Your task to perform on an android device: Go to internet settings Image 0: 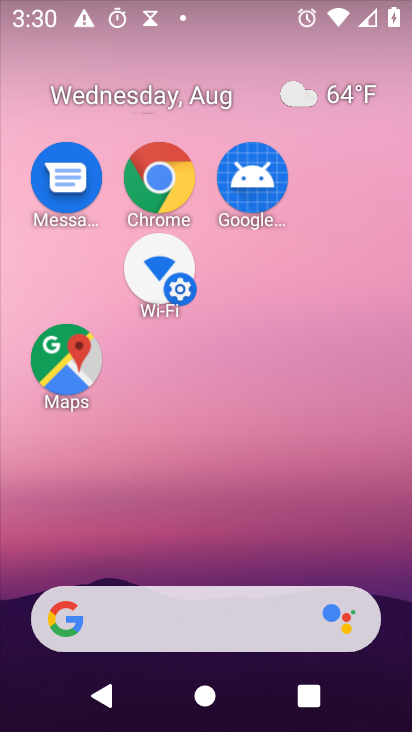
Step 0: press home button
Your task to perform on an android device: Go to internet settings Image 1: 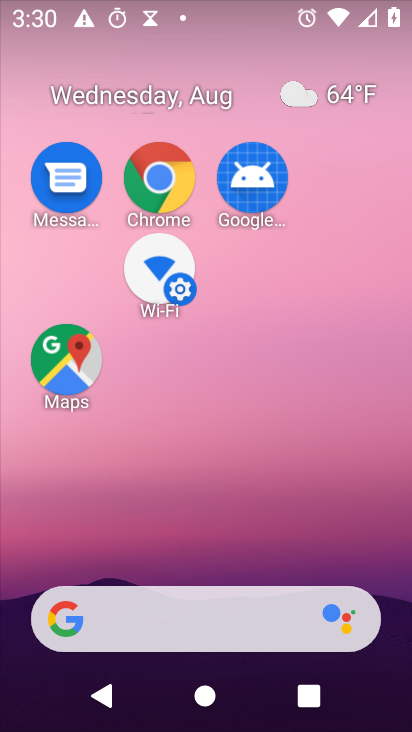
Step 1: drag from (244, 572) to (259, 69)
Your task to perform on an android device: Go to internet settings Image 2: 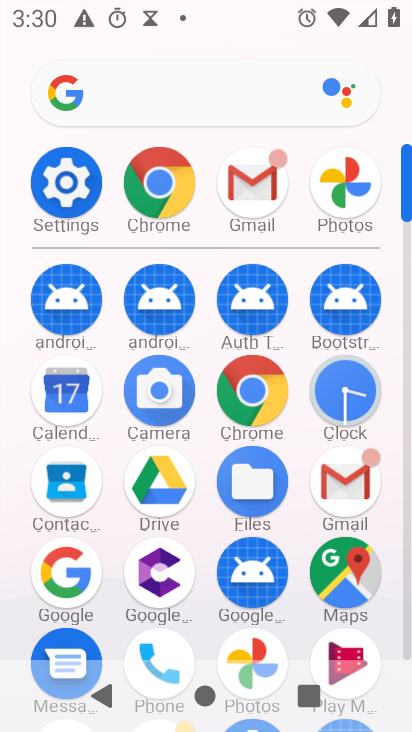
Step 2: click (55, 182)
Your task to perform on an android device: Go to internet settings Image 3: 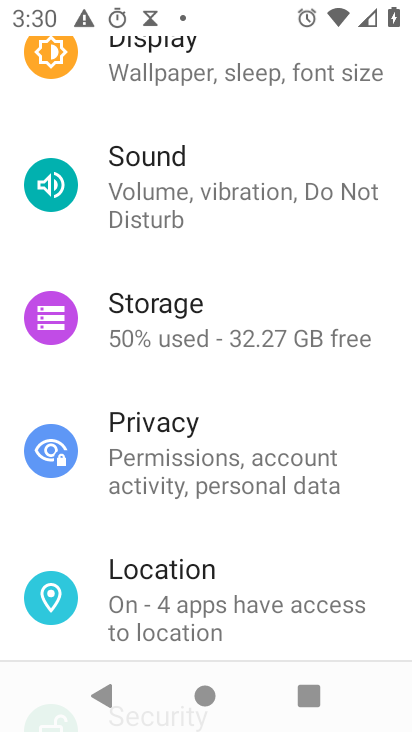
Step 3: drag from (236, 146) to (277, 707)
Your task to perform on an android device: Go to internet settings Image 4: 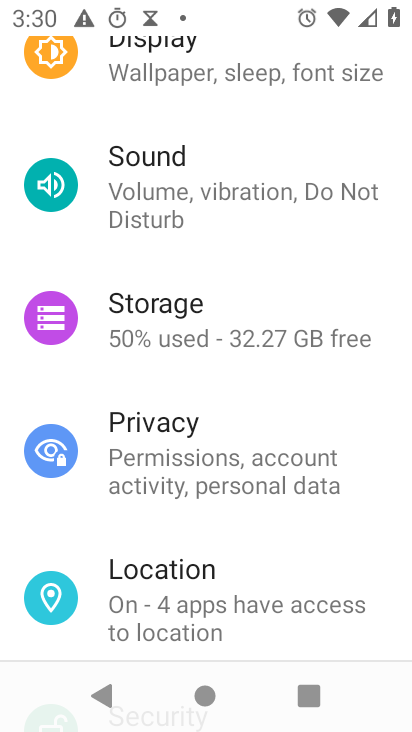
Step 4: drag from (284, 282) to (250, 716)
Your task to perform on an android device: Go to internet settings Image 5: 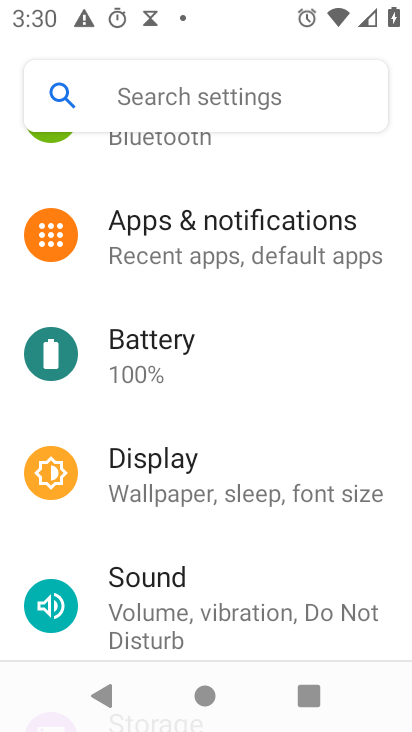
Step 5: drag from (259, 278) to (220, 724)
Your task to perform on an android device: Go to internet settings Image 6: 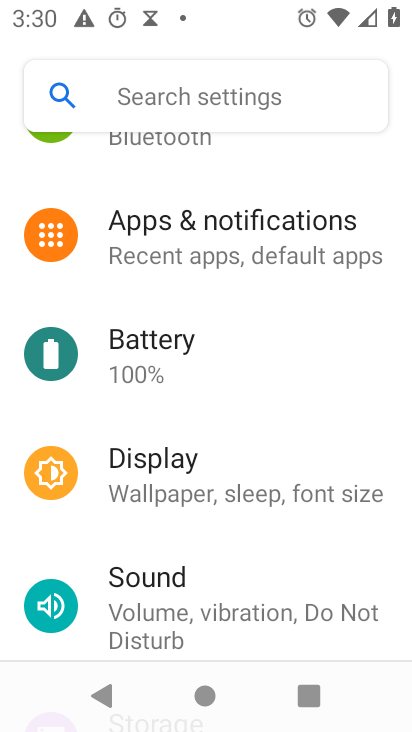
Step 6: drag from (198, 149) to (180, 603)
Your task to perform on an android device: Go to internet settings Image 7: 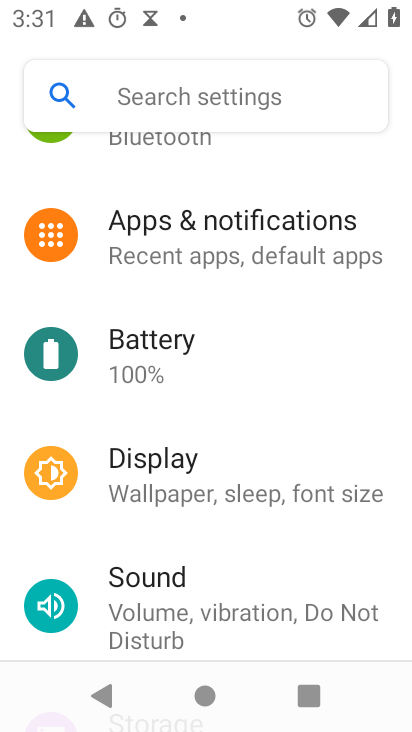
Step 7: drag from (261, 168) to (253, 547)
Your task to perform on an android device: Go to internet settings Image 8: 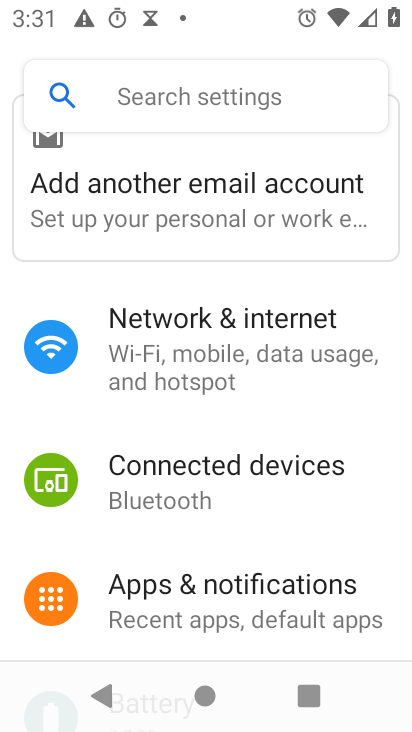
Step 8: click (185, 338)
Your task to perform on an android device: Go to internet settings Image 9: 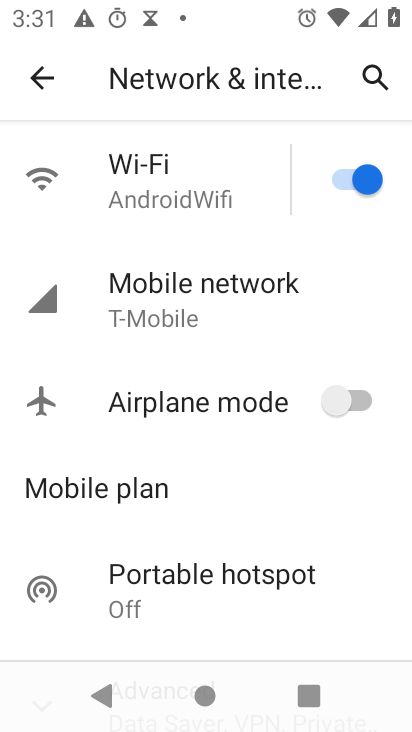
Step 9: task complete